Your task to perform on an android device: Open sound settings Image 0: 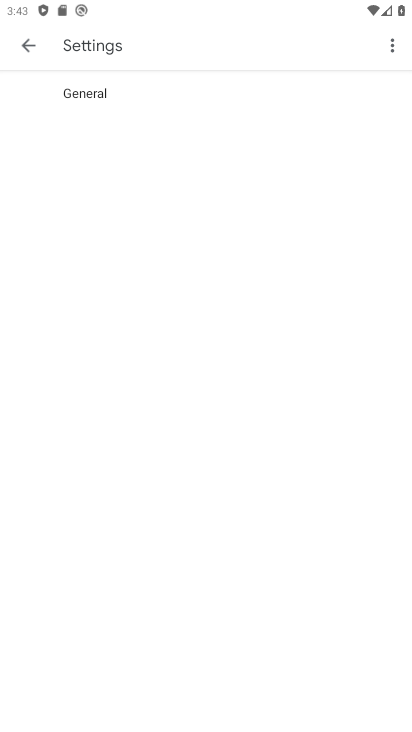
Step 0: press home button
Your task to perform on an android device: Open sound settings Image 1: 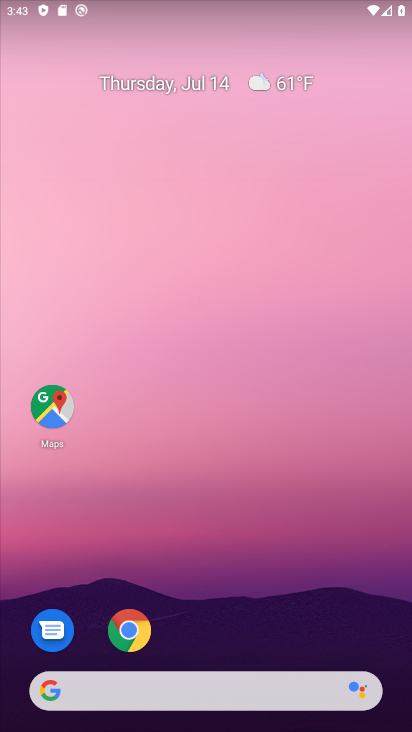
Step 1: drag from (266, 647) to (183, 111)
Your task to perform on an android device: Open sound settings Image 2: 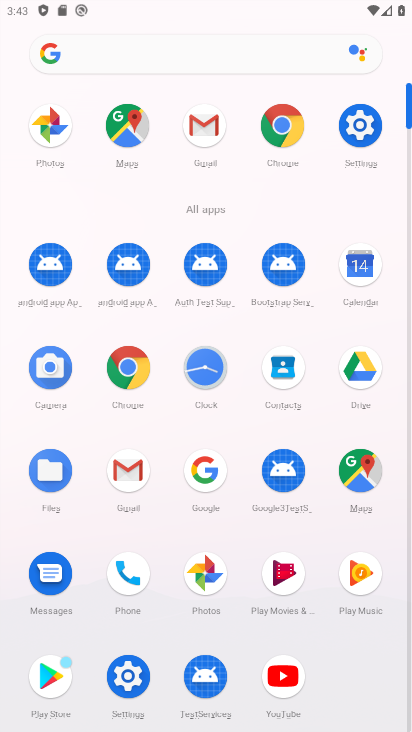
Step 2: click (367, 123)
Your task to perform on an android device: Open sound settings Image 3: 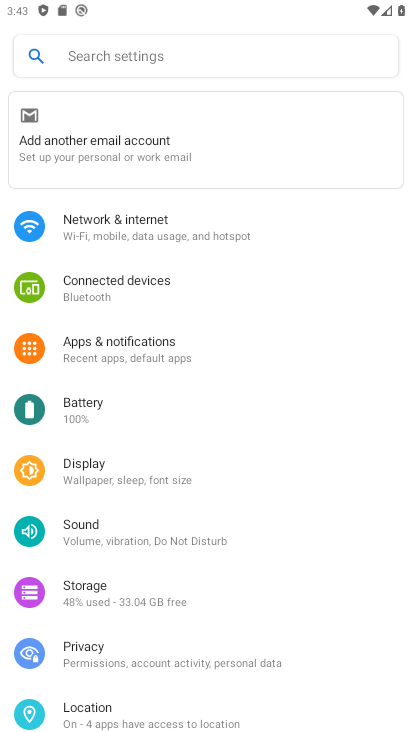
Step 3: click (164, 538)
Your task to perform on an android device: Open sound settings Image 4: 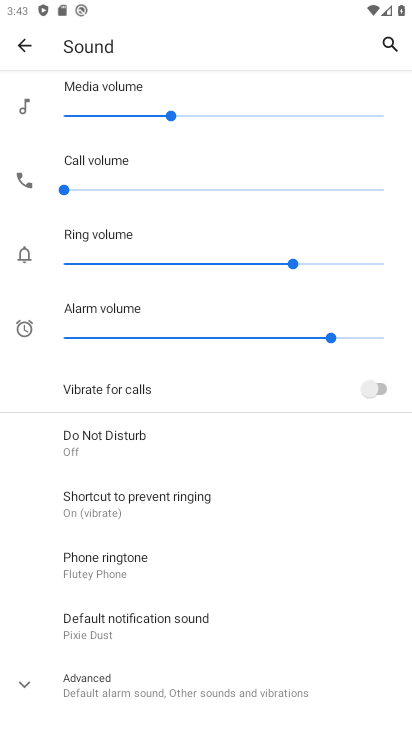
Step 4: task complete